Your task to perform on an android device: Show me the alarms in the clock app Image 0: 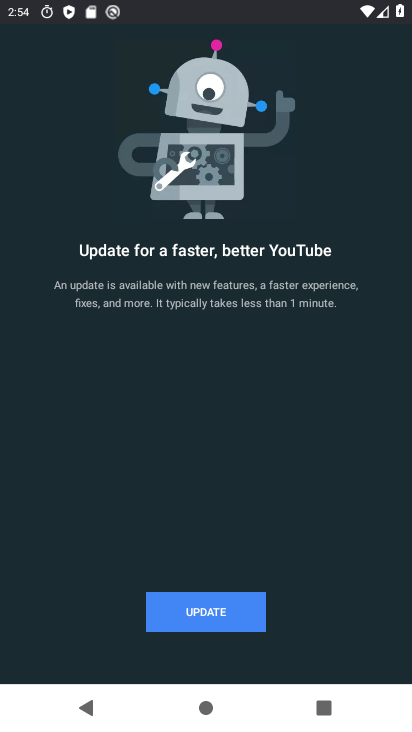
Step 0: press home button
Your task to perform on an android device: Show me the alarms in the clock app Image 1: 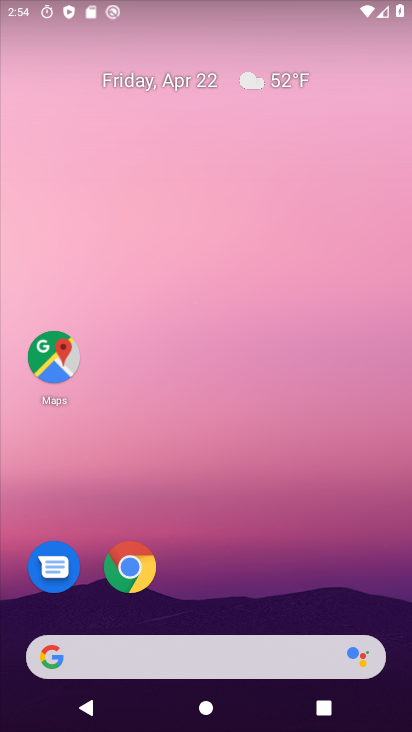
Step 1: drag from (249, 393) to (248, 85)
Your task to perform on an android device: Show me the alarms in the clock app Image 2: 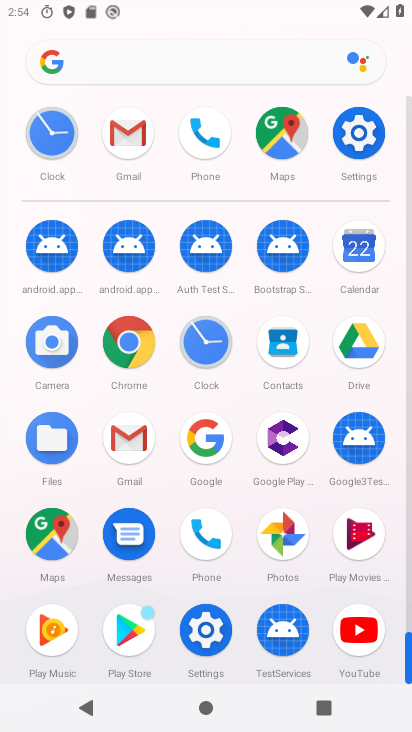
Step 2: click (199, 351)
Your task to perform on an android device: Show me the alarms in the clock app Image 3: 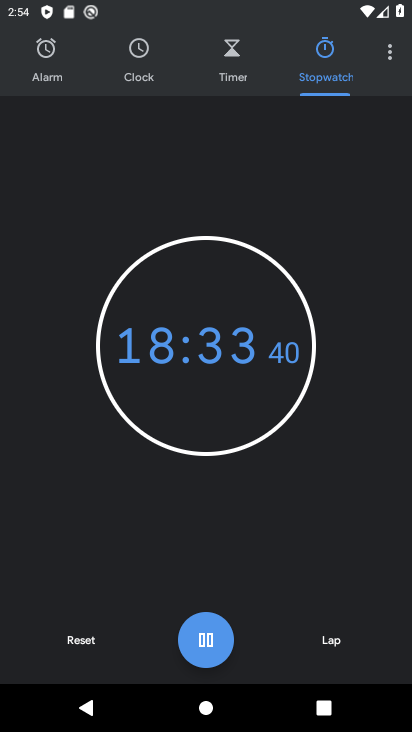
Step 3: click (33, 47)
Your task to perform on an android device: Show me the alarms in the clock app Image 4: 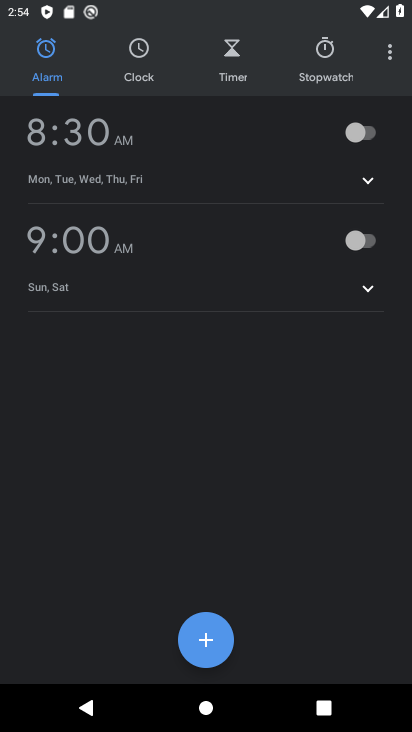
Step 4: task complete